Your task to perform on an android device: find snoozed emails in the gmail app Image 0: 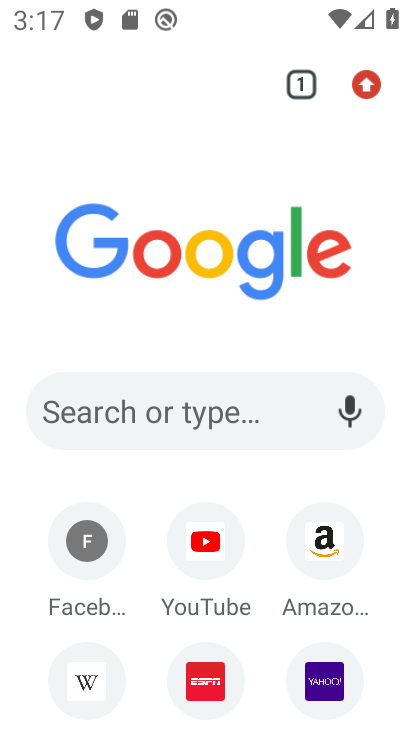
Step 0: press home button
Your task to perform on an android device: find snoozed emails in the gmail app Image 1: 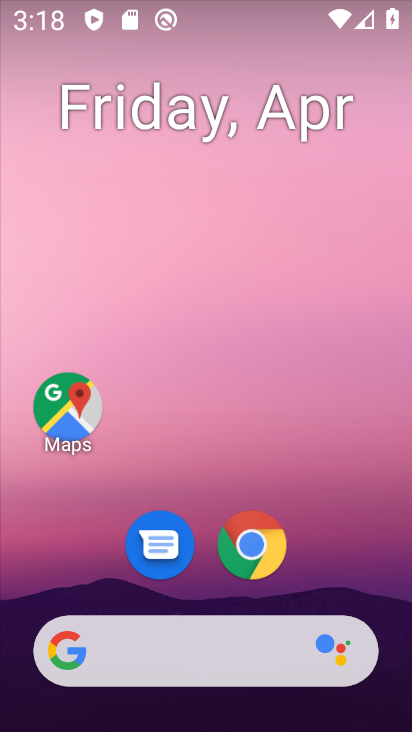
Step 1: drag from (394, 611) to (284, 73)
Your task to perform on an android device: find snoozed emails in the gmail app Image 2: 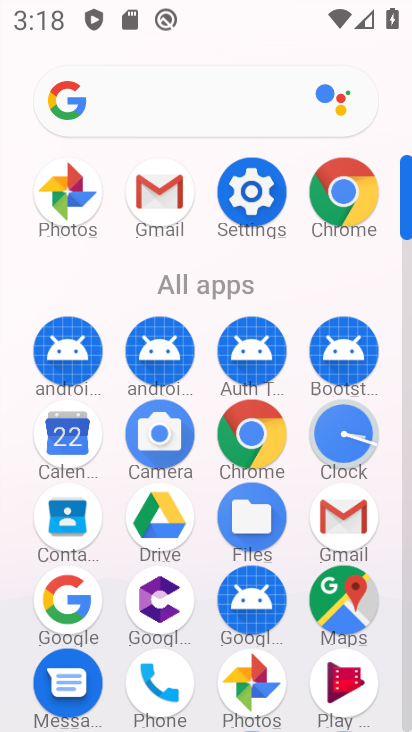
Step 2: click (405, 685)
Your task to perform on an android device: find snoozed emails in the gmail app Image 3: 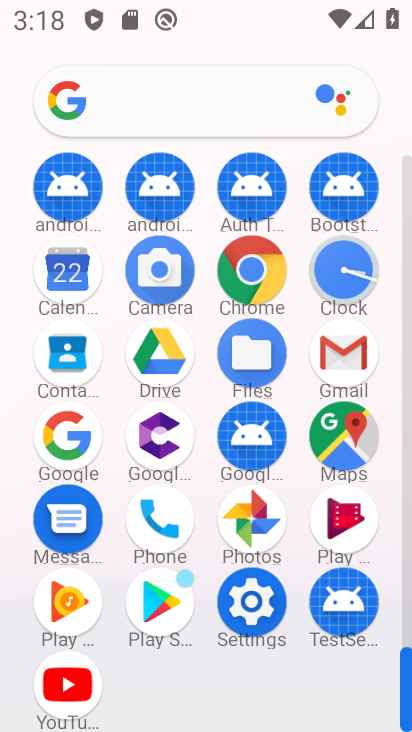
Step 3: click (338, 349)
Your task to perform on an android device: find snoozed emails in the gmail app Image 4: 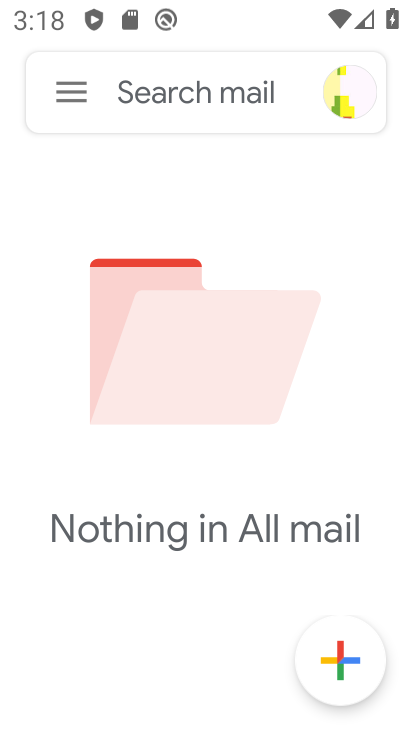
Step 4: click (67, 94)
Your task to perform on an android device: find snoozed emails in the gmail app Image 5: 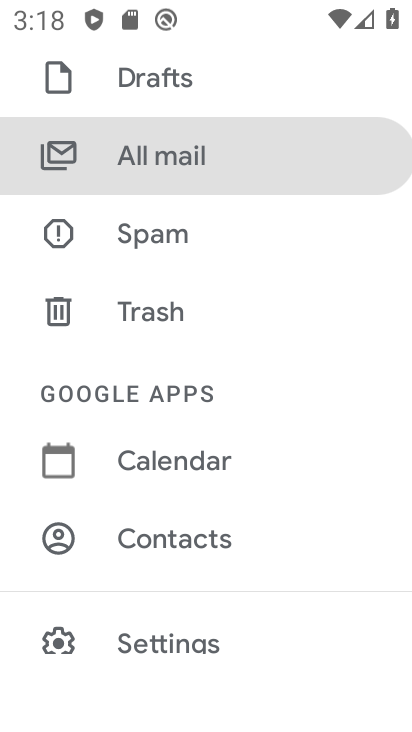
Step 5: drag from (277, 197) to (288, 509)
Your task to perform on an android device: find snoozed emails in the gmail app Image 6: 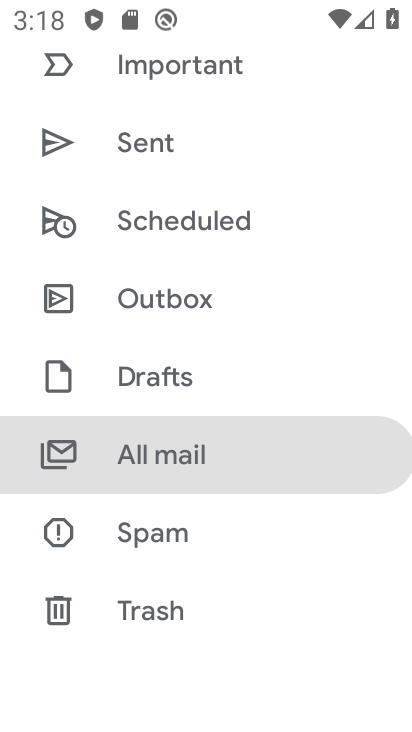
Step 6: drag from (323, 188) to (314, 476)
Your task to perform on an android device: find snoozed emails in the gmail app Image 7: 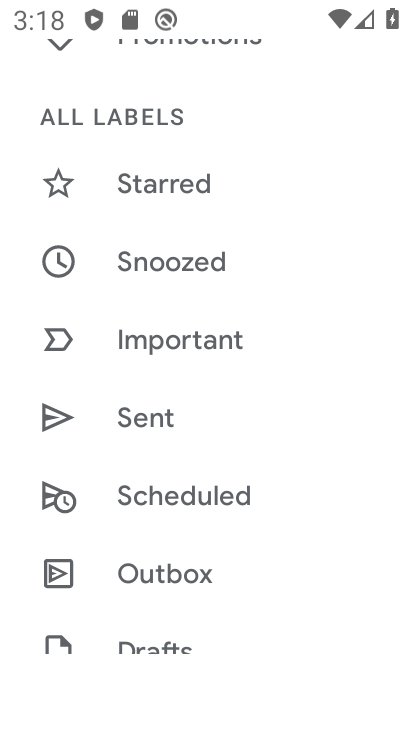
Step 7: click (155, 266)
Your task to perform on an android device: find snoozed emails in the gmail app Image 8: 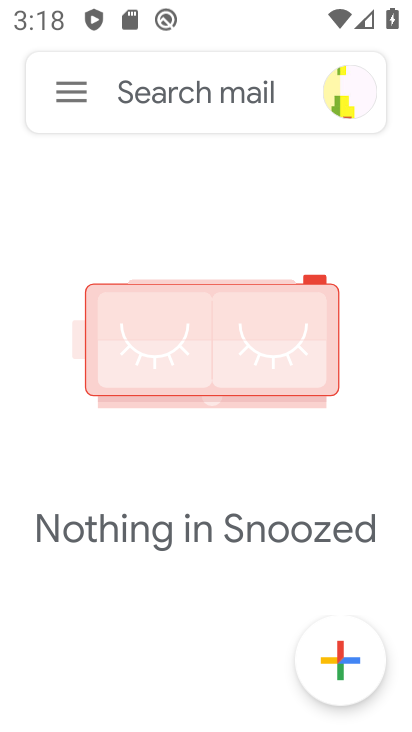
Step 8: task complete